Your task to perform on an android device: turn on data saver in the chrome app Image 0: 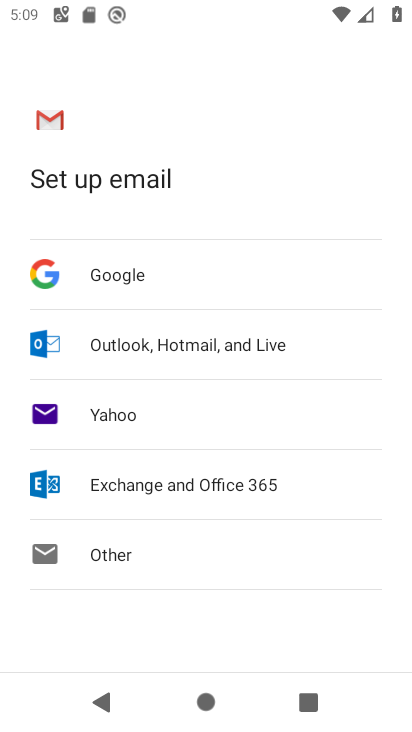
Step 0: press home button
Your task to perform on an android device: turn on data saver in the chrome app Image 1: 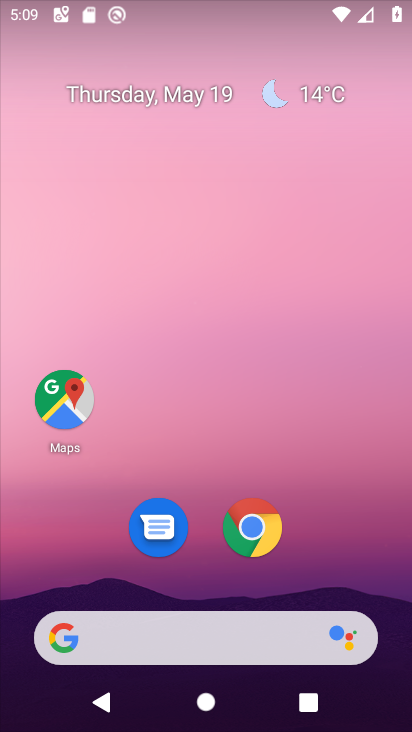
Step 1: click (260, 513)
Your task to perform on an android device: turn on data saver in the chrome app Image 2: 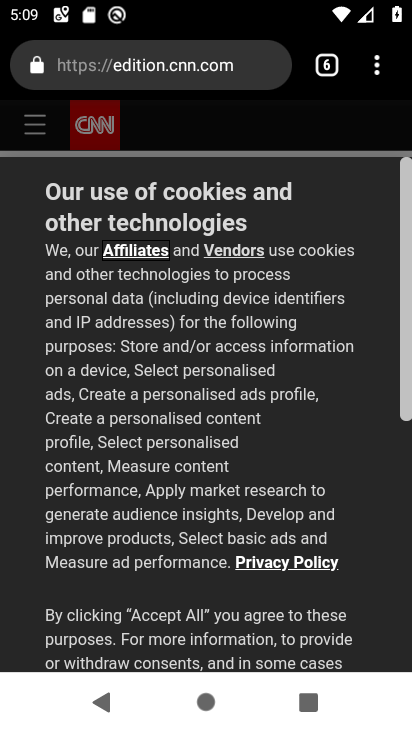
Step 2: click (374, 67)
Your task to perform on an android device: turn on data saver in the chrome app Image 3: 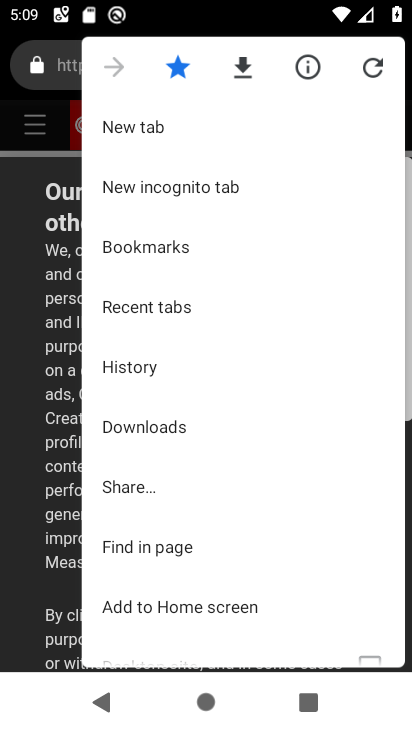
Step 3: drag from (306, 461) to (258, 160)
Your task to perform on an android device: turn on data saver in the chrome app Image 4: 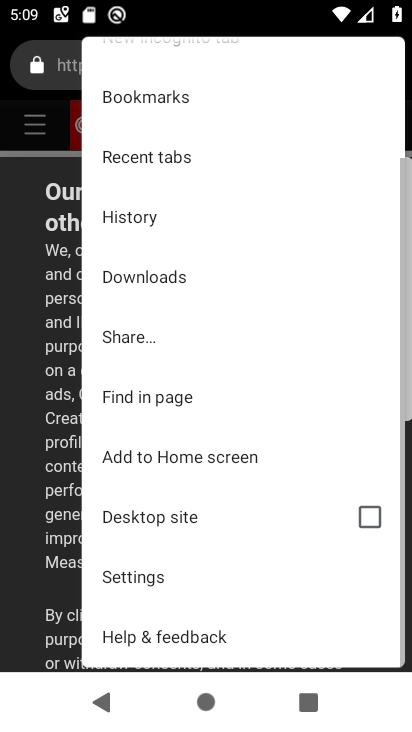
Step 4: click (175, 572)
Your task to perform on an android device: turn on data saver in the chrome app Image 5: 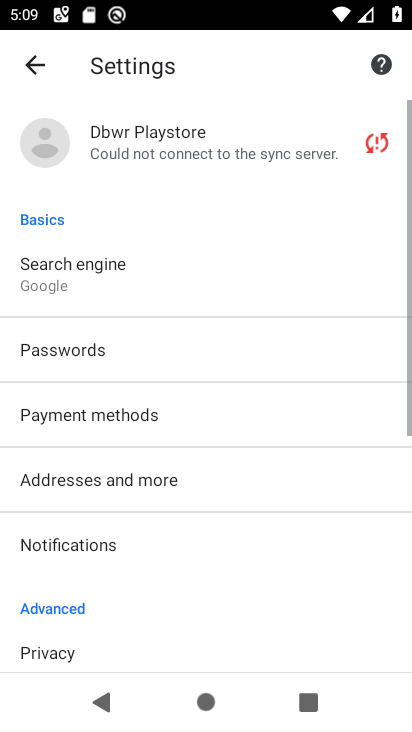
Step 5: drag from (321, 434) to (268, 45)
Your task to perform on an android device: turn on data saver in the chrome app Image 6: 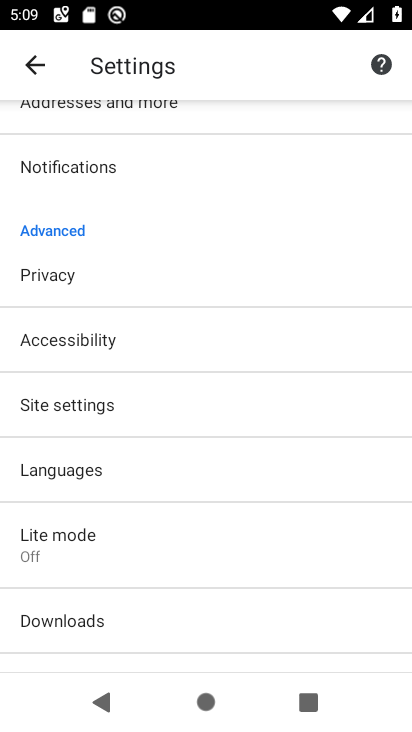
Step 6: click (170, 538)
Your task to perform on an android device: turn on data saver in the chrome app Image 7: 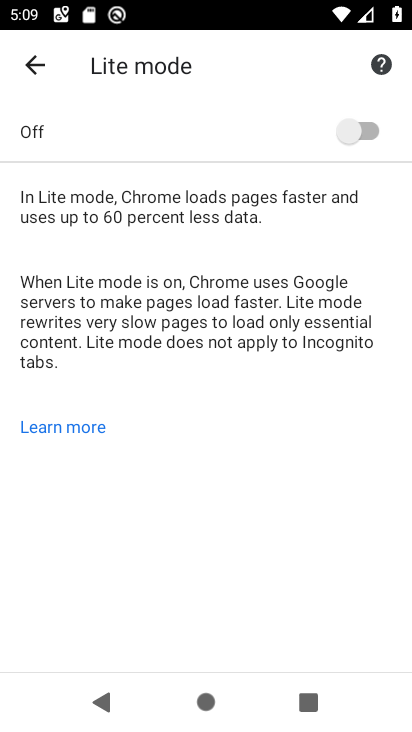
Step 7: click (337, 131)
Your task to perform on an android device: turn on data saver in the chrome app Image 8: 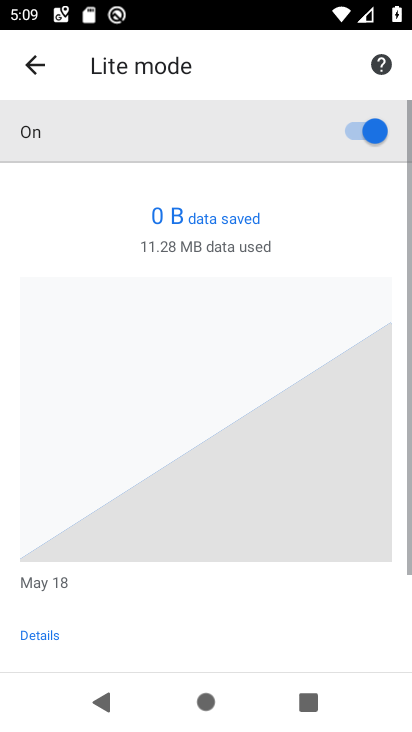
Step 8: task complete